Your task to perform on an android device: Open the stopwatch Image 0: 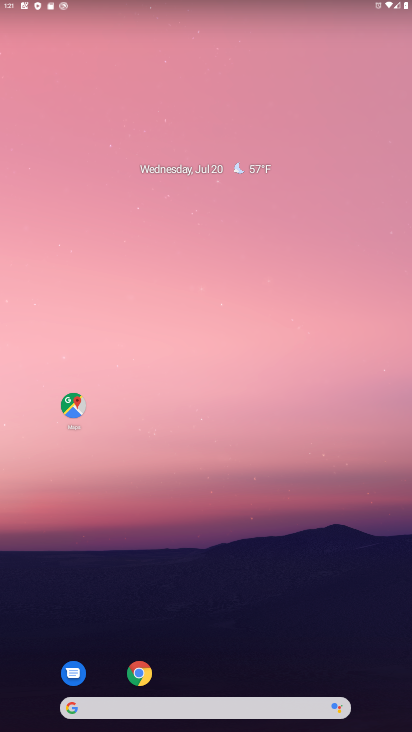
Step 0: drag from (314, 654) to (211, 233)
Your task to perform on an android device: Open the stopwatch Image 1: 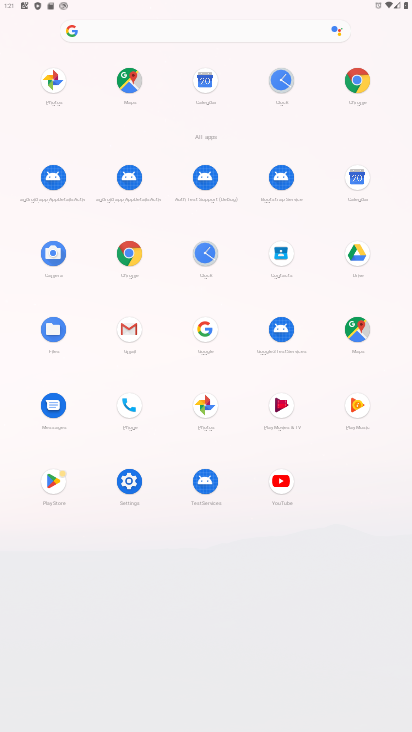
Step 1: click (216, 253)
Your task to perform on an android device: Open the stopwatch Image 2: 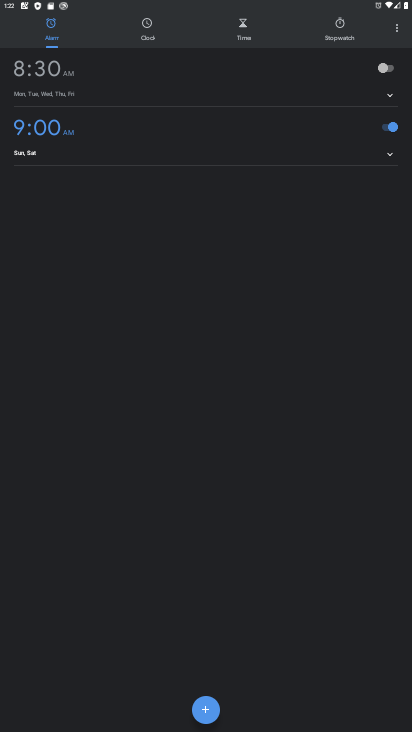
Step 2: click (343, 16)
Your task to perform on an android device: Open the stopwatch Image 3: 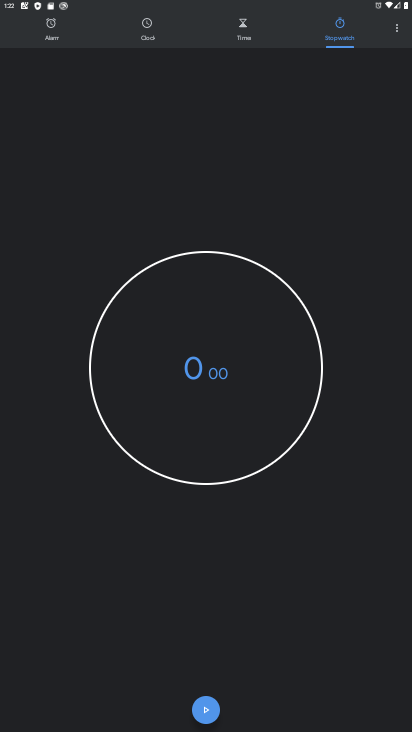
Step 3: task complete